Your task to perform on an android device: allow notifications from all sites in the chrome app Image 0: 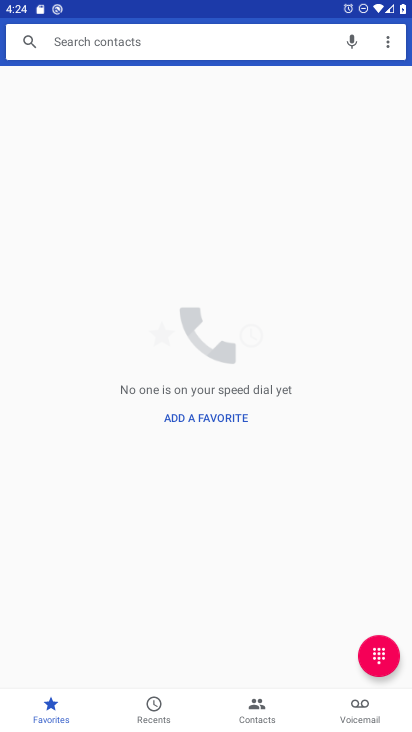
Step 0: press home button
Your task to perform on an android device: allow notifications from all sites in the chrome app Image 1: 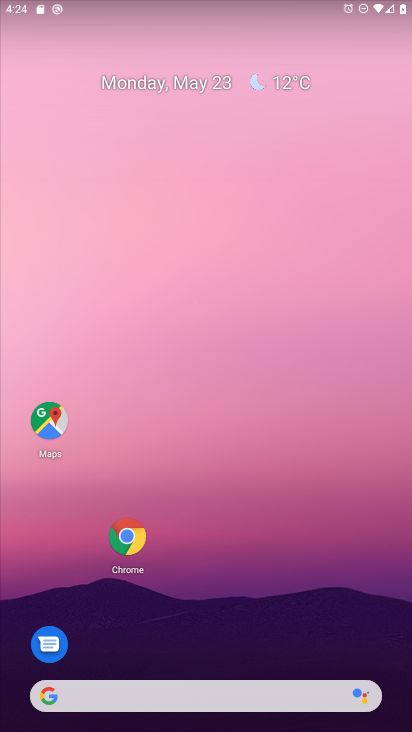
Step 1: drag from (358, 593) to (257, 175)
Your task to perform on an android device: allow notifications from all sites in the chrome app Image 2: 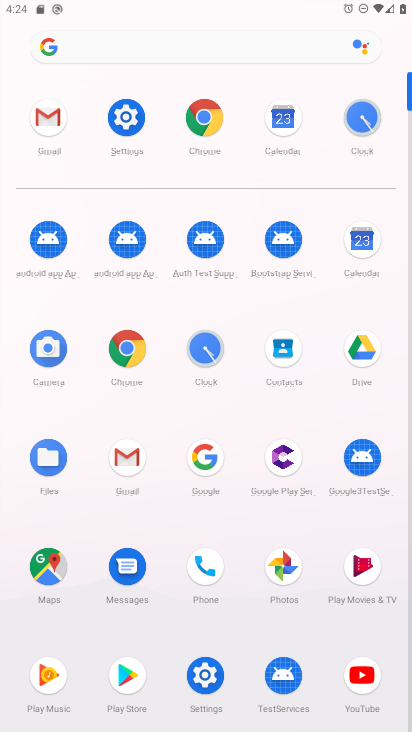
Step 2: click (116, 353)
Your task to perform on an android device: allow notifications from all sites in the chrome app Image 3: 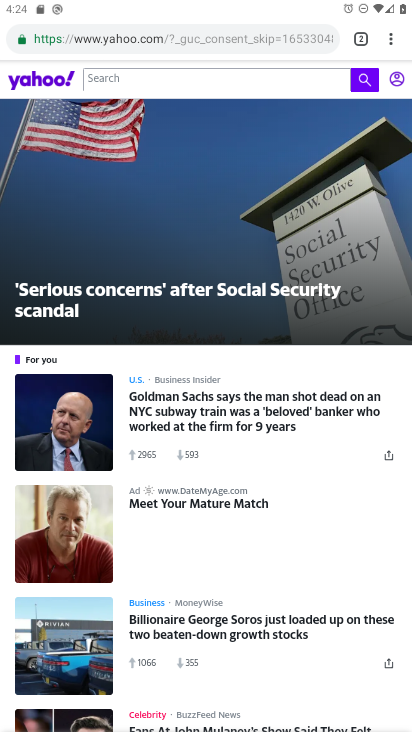
Step 3: click (397, 37)
Your task to perform on an android device: allow notifications from all sites in the chrome app Image 4: 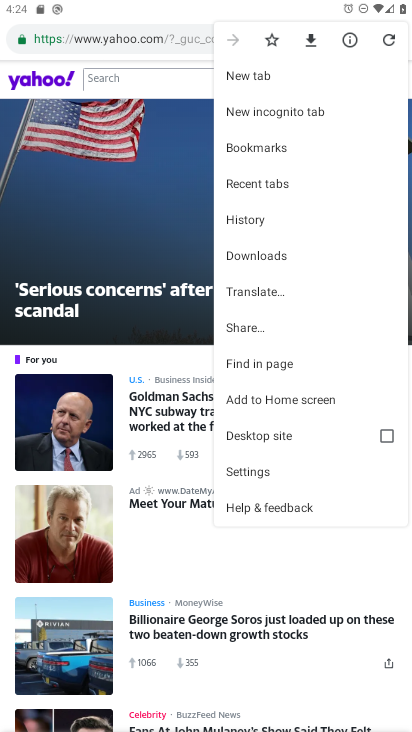
Step 4: click (257, 475)
Your task to perform on an android device: allow notifications from all sites in the chrome app Image 5: 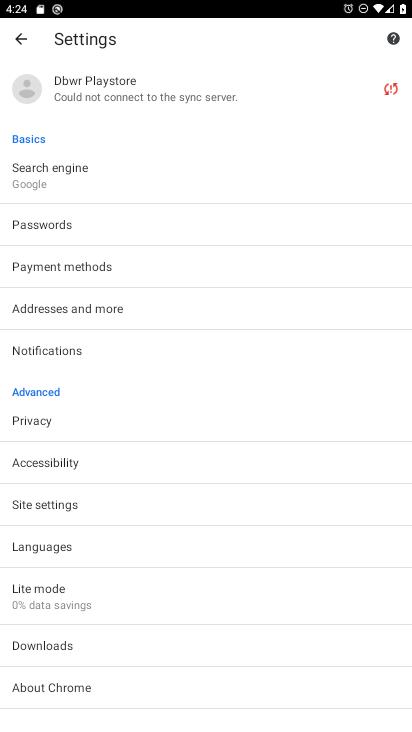
Step 5: drag from (142, 559) to (237, 163)
Your task to perform on an android device: allow notifications from all sites in the chrome app Image 6: 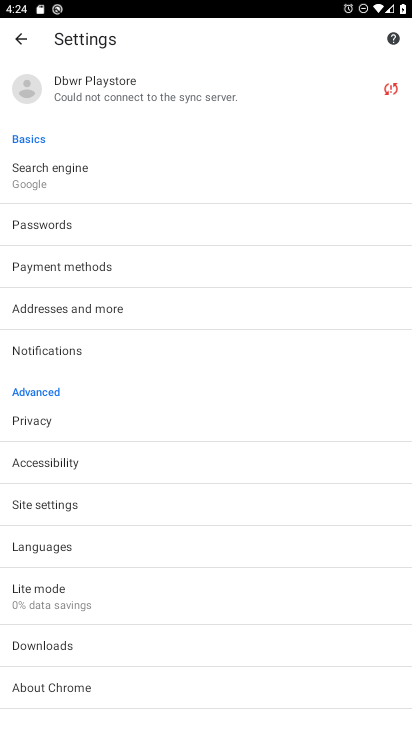
Step 6: click (83, 348)
Your task to perform on an android device: allow notifications from all sites in the chrome app Image 7: 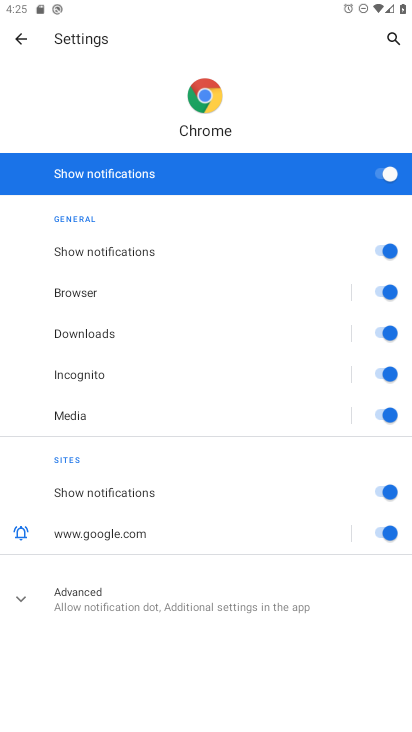
Step 7: task complete